Your task to perform on an android device: Open settings Image 0: 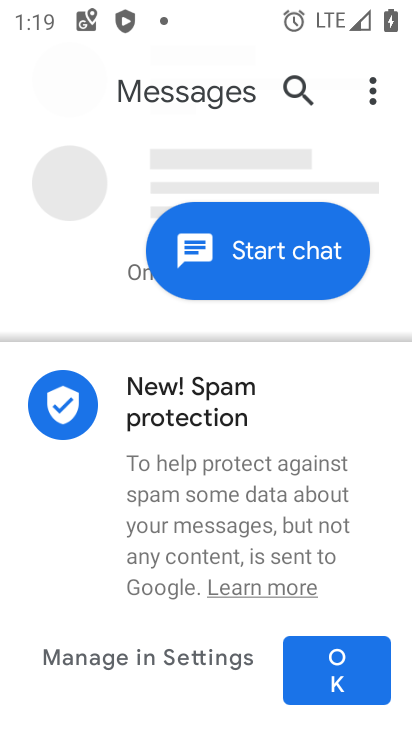
Step 0: press home button
Your task to perform on an android device: Open settings Image 1: 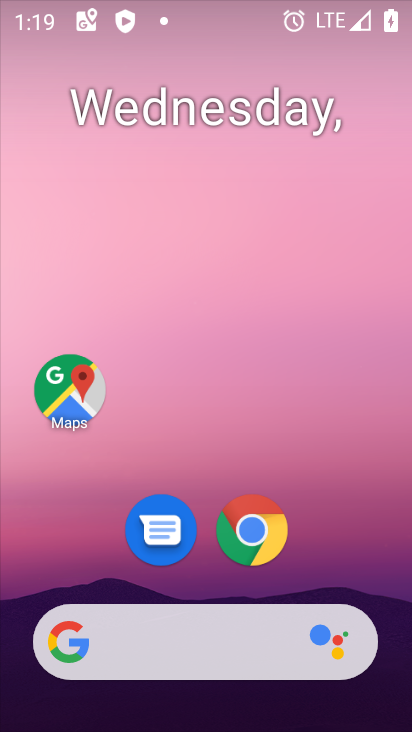
Step 1: drag from (357, 458) to (322, 157)
Your task to perform on an android device: Open settings Image 2: 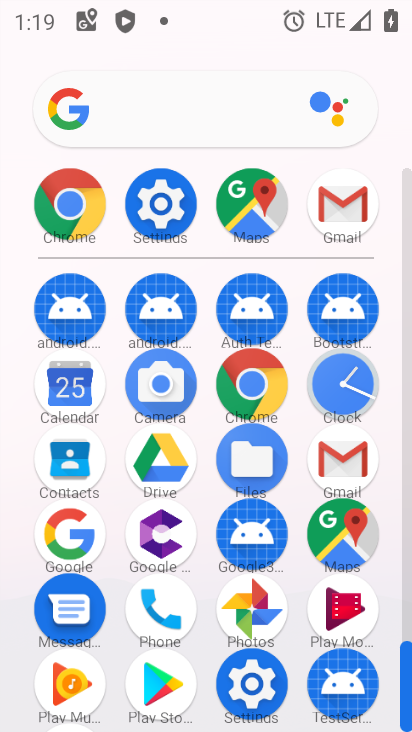
Step 2: click (171, 216)
Your task to perform on an android device: Open settings Image 3: 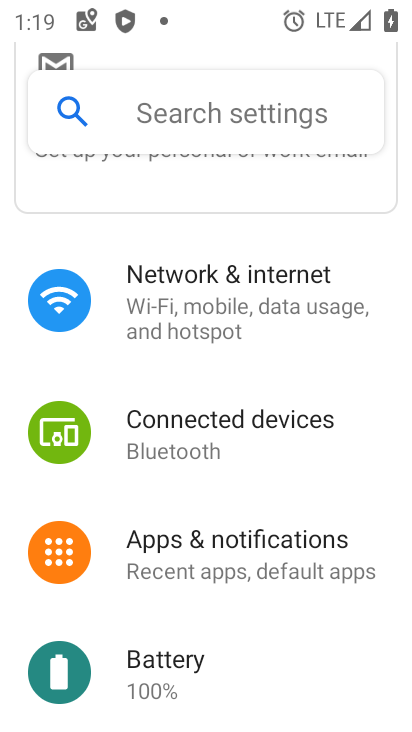
Step 3: task complete